Your task to perform on an android device: Go to Yahoo.com Image 0: 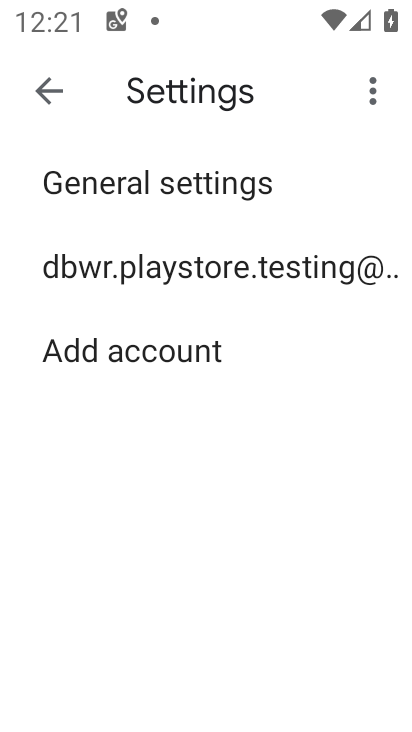
Step 0: press home button
Your task to perform on an android device: Go to Yahoo.com Image 1: 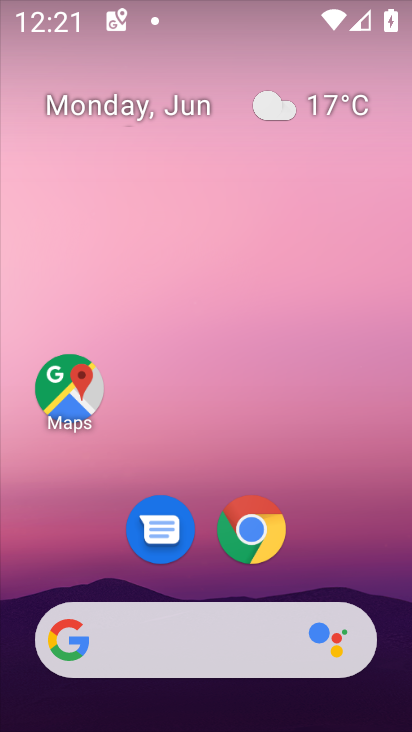
Step 1: drag from (320, 526) to (314, 17)
Your task to perform on an android device: Go to Yahoo.com Image 2: 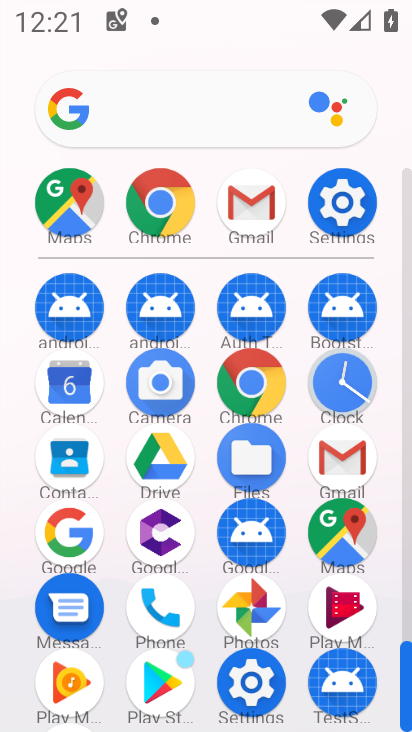
Step 2: click (149, 213)
Your task to perform on an android device: Go to Yahoo.com Image 3: 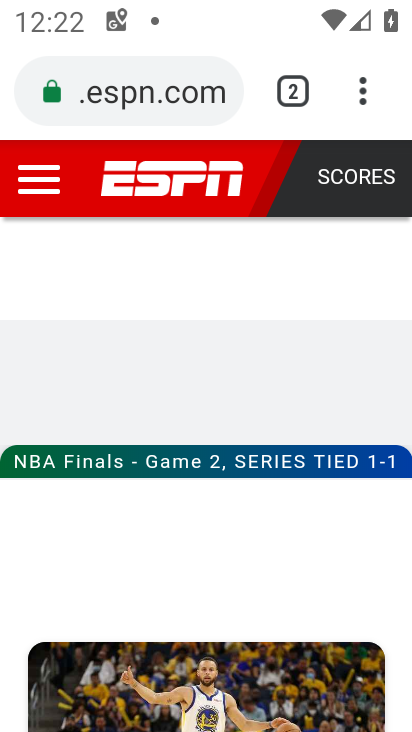
Step 3: click (197, 82)
Your task to perform on an android device: Go to Yahoo.com Image 4: 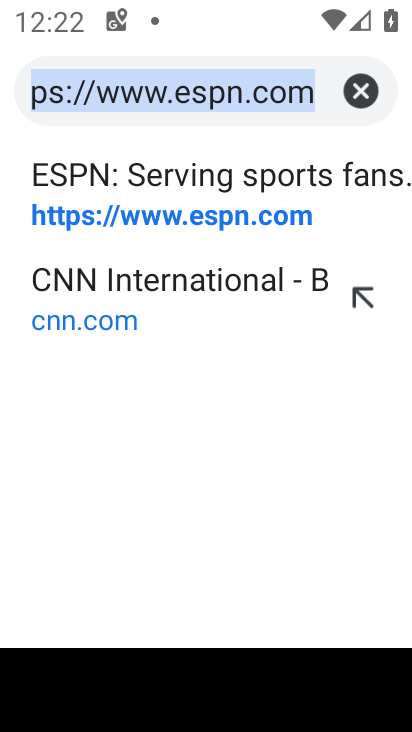
Step 4: click (362, 93)
Your task to perform on an android device: Go to Yahoo.com Image 5: 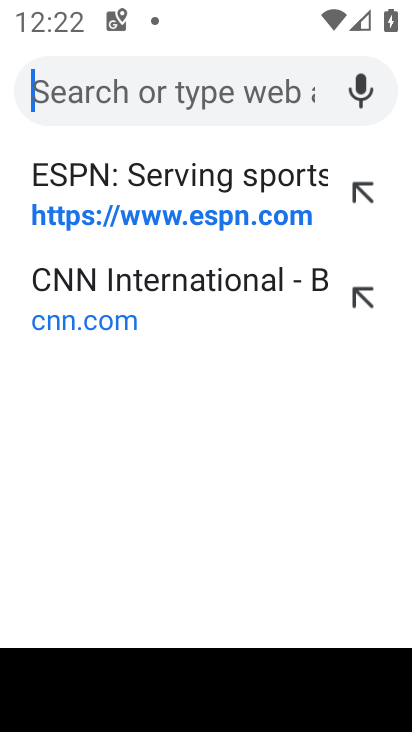
Step 5: type "yahoo"
Your task to perform on an android device: Go to Yahoo.com Image 6: 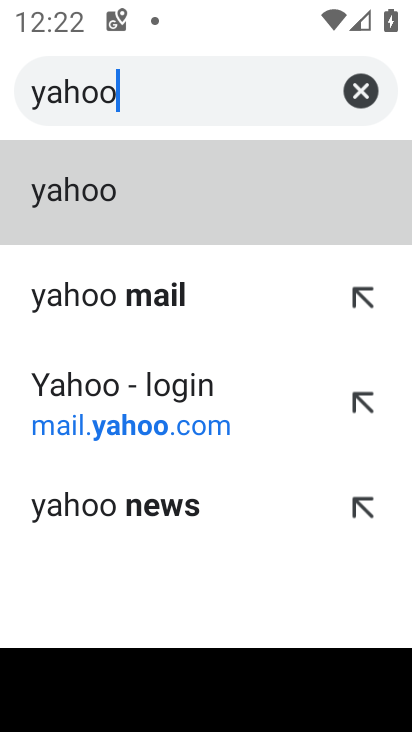
Step 6: click (180, 310)
Your task to perform on an android device: Go to Yahoo.com Image 7: 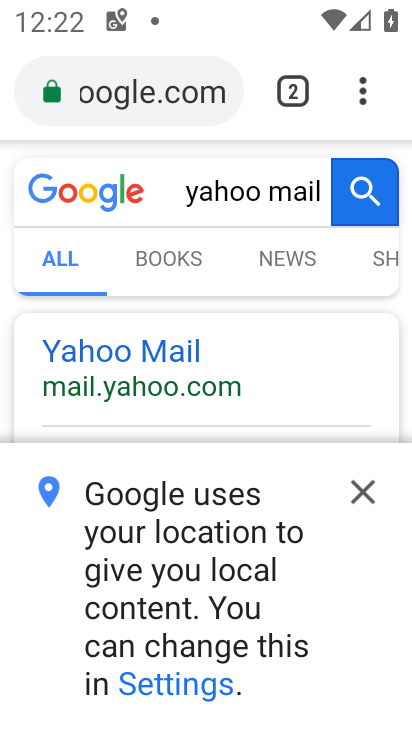
Step 7: click (167, 371)
Your task to perform on an android device: Go to Yahoo.com Image 8: 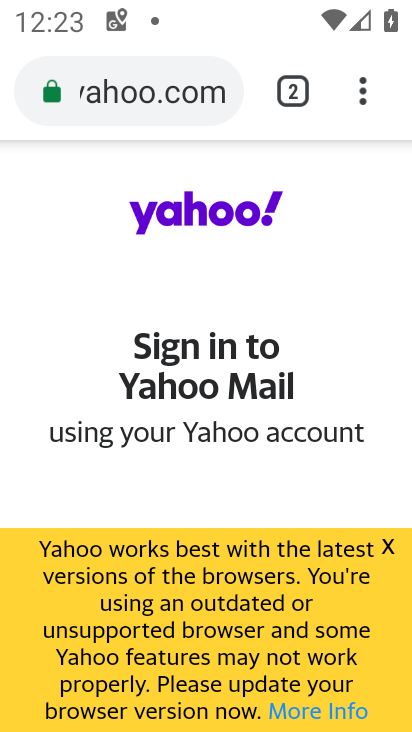
Step 8: task complete